Your task to perform on an android device: Clear the cart on newegg.com. Image 0: 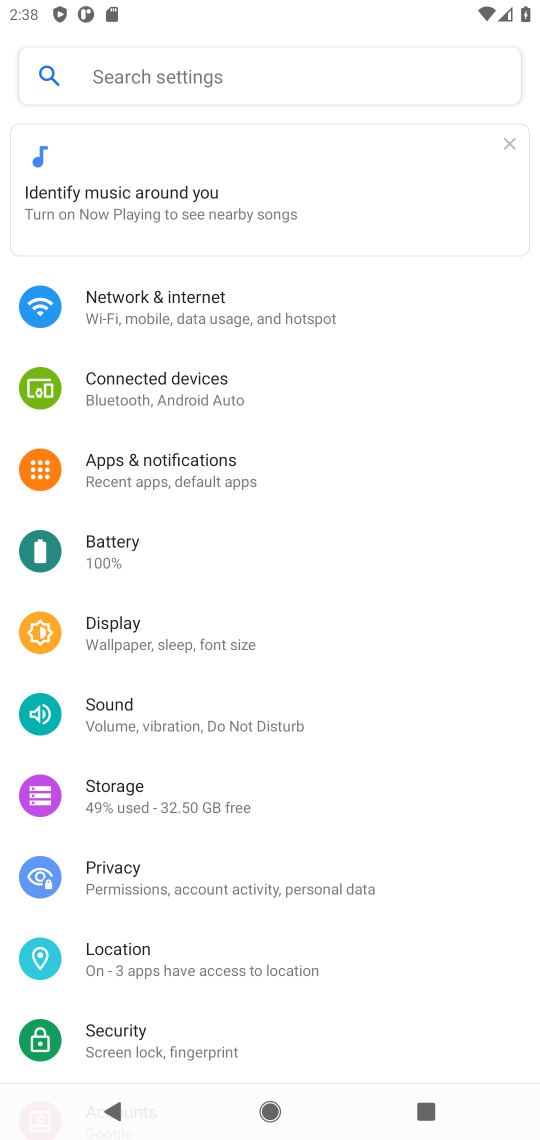
Step 0: press home button
Your task to perform on an android device: Clear the cart on newegg.com. Image 1: 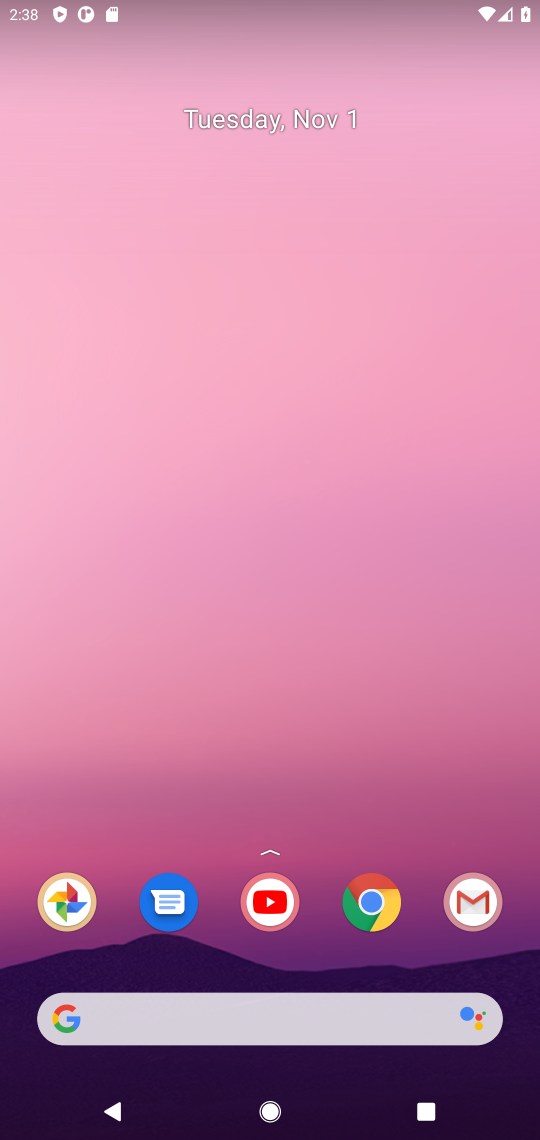
Step 1: click (368, 906)
Your task to perform on an android device: Clear the cart on newegg.com. Image 2: 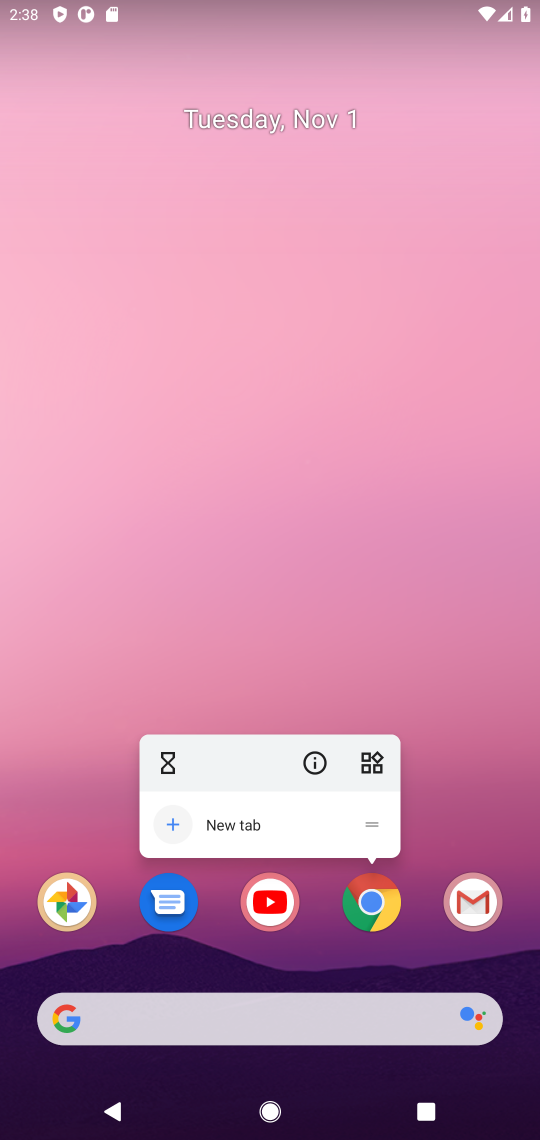
Step 2: click (371, 899)
Your task to perform on an android device: Clear the cart on newegg.com. Image 3: 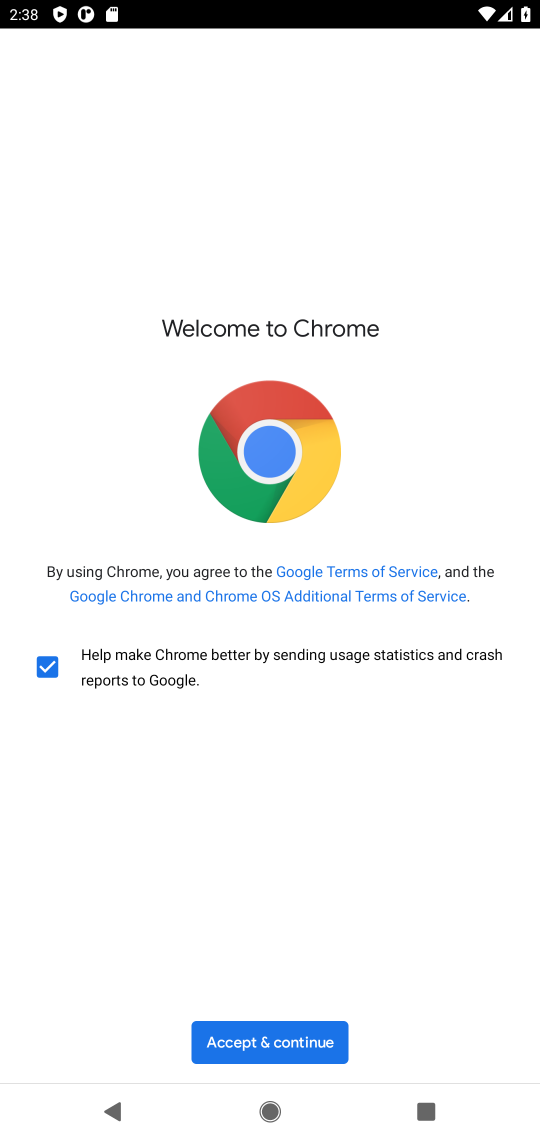
Step 3: click (269, 1034)
Your task to perform on an android device: Clear the cart on newegg.com. Image 4: 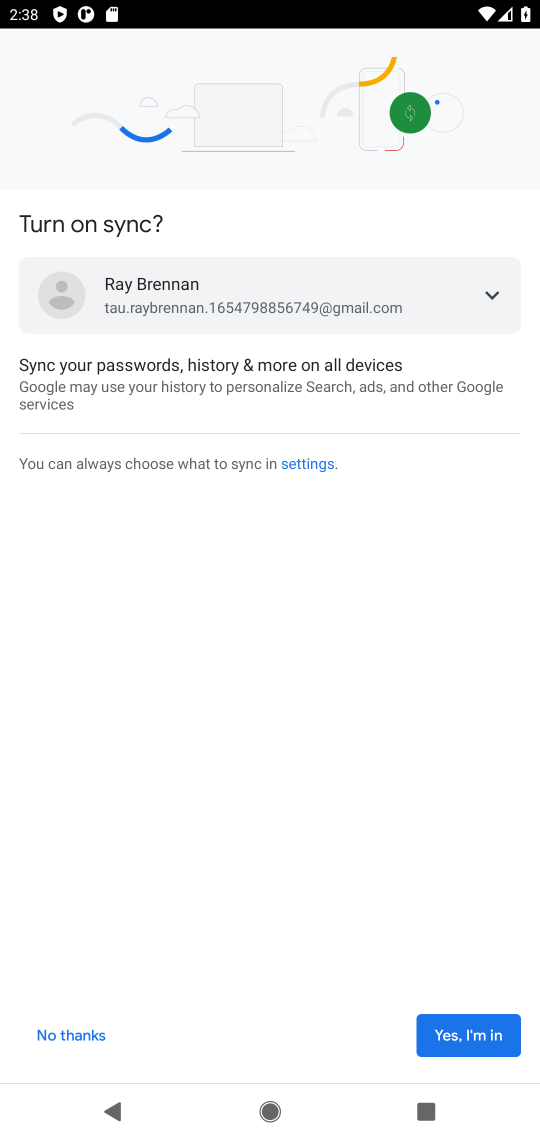
Step 4: click (459, 1041)
Your task to perform on an android device: Clear the cart on newegg.com. Image 5: 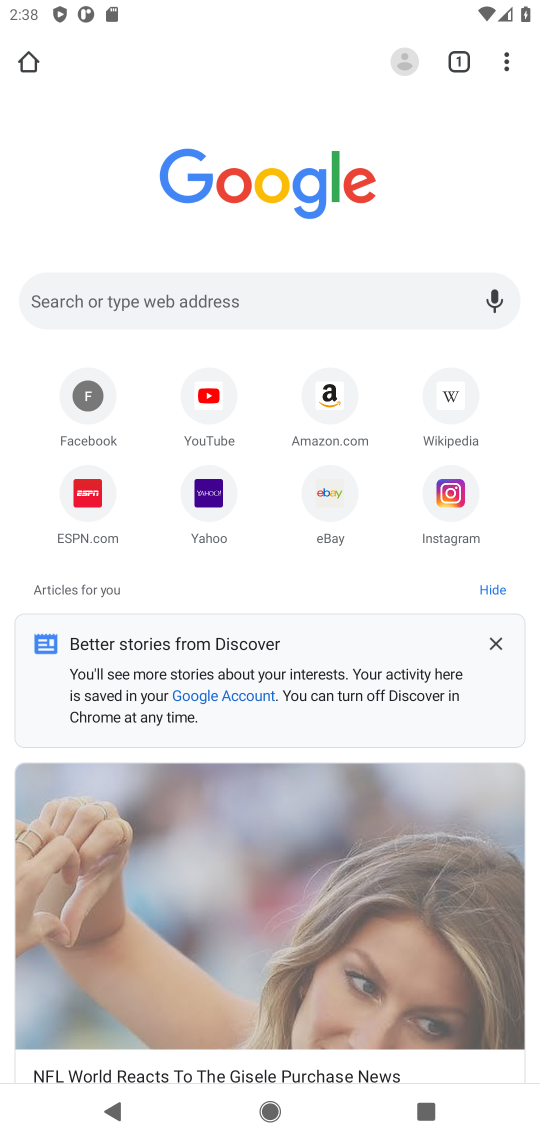
Step 5: click (268, 304)
Your task to perform on an android device: Clear the cart on newegg.com. Image 6: 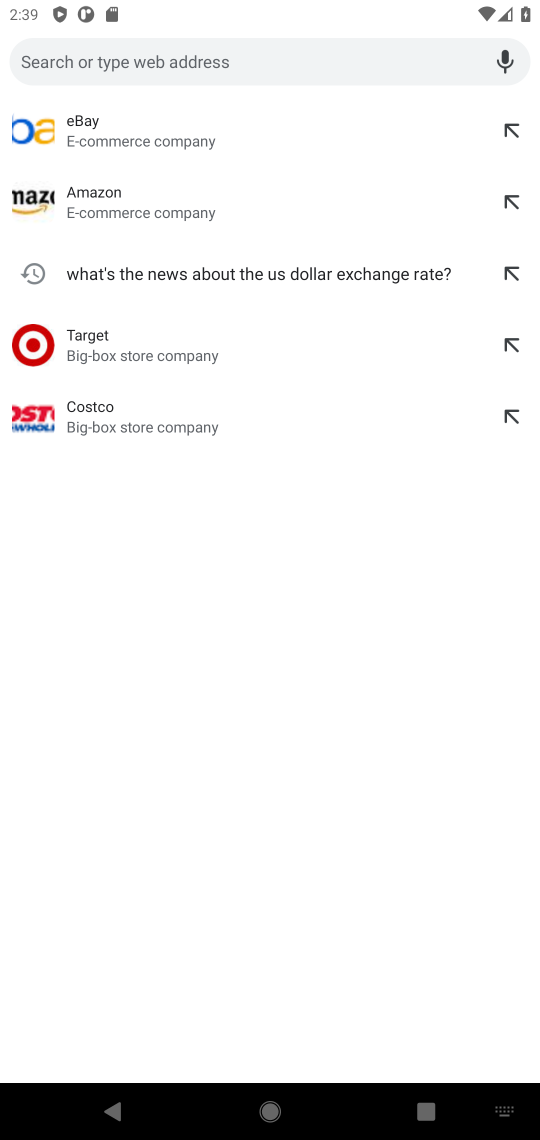
Step 6: type "newegg.com"
Your task to perform on an android device: Clear the cart on newegg.com. Image 7: 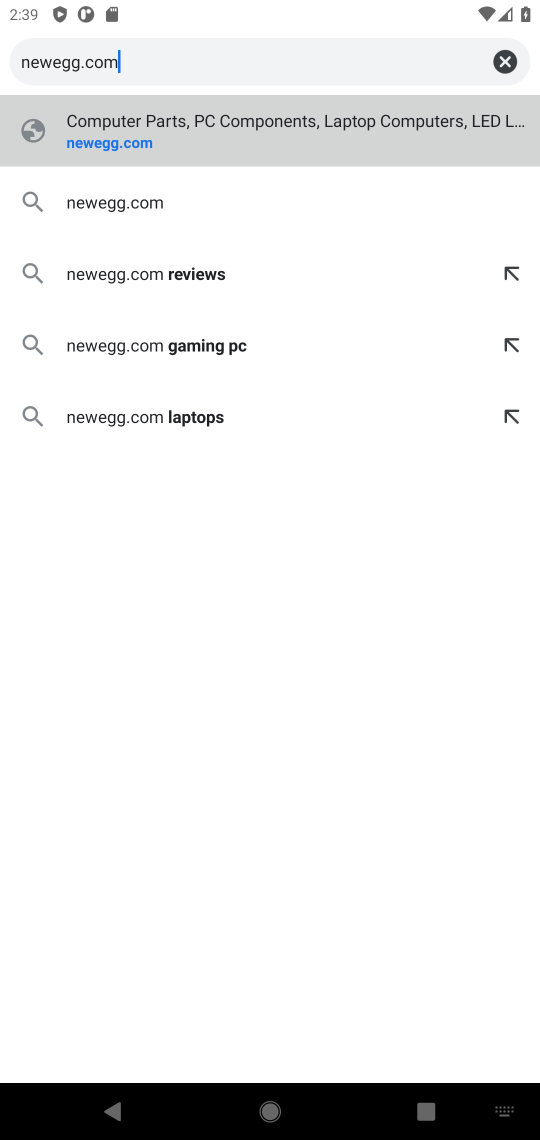
Step 7: click (133, 203)
Your task to perform on an android device: Clear the cart on newegg.com. Image 8: 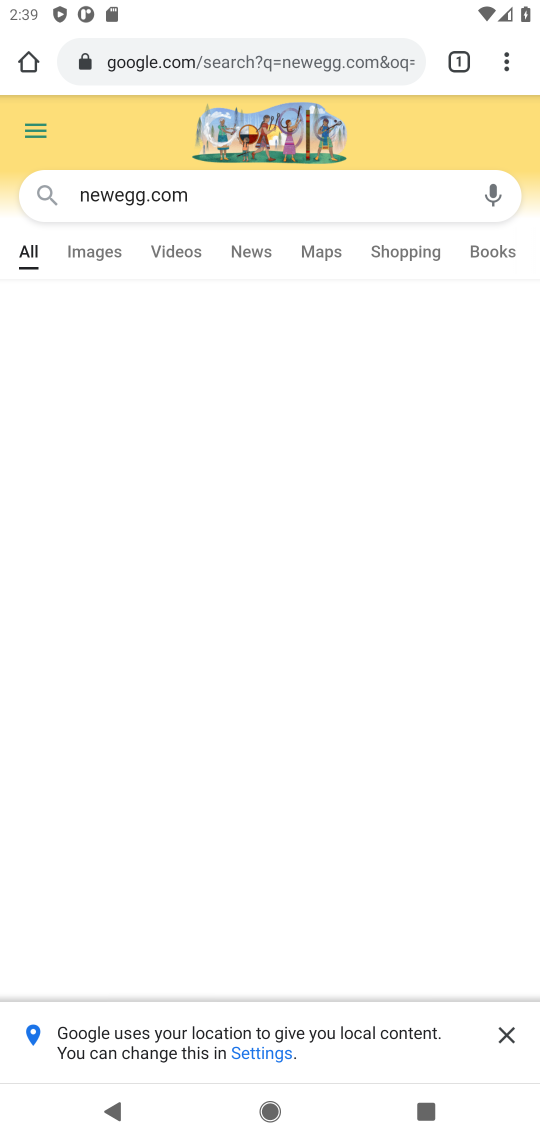
Step 8: click (504, 1029)
Your task to perform on an android device: Clear the cart on newegg.com. Image 9: 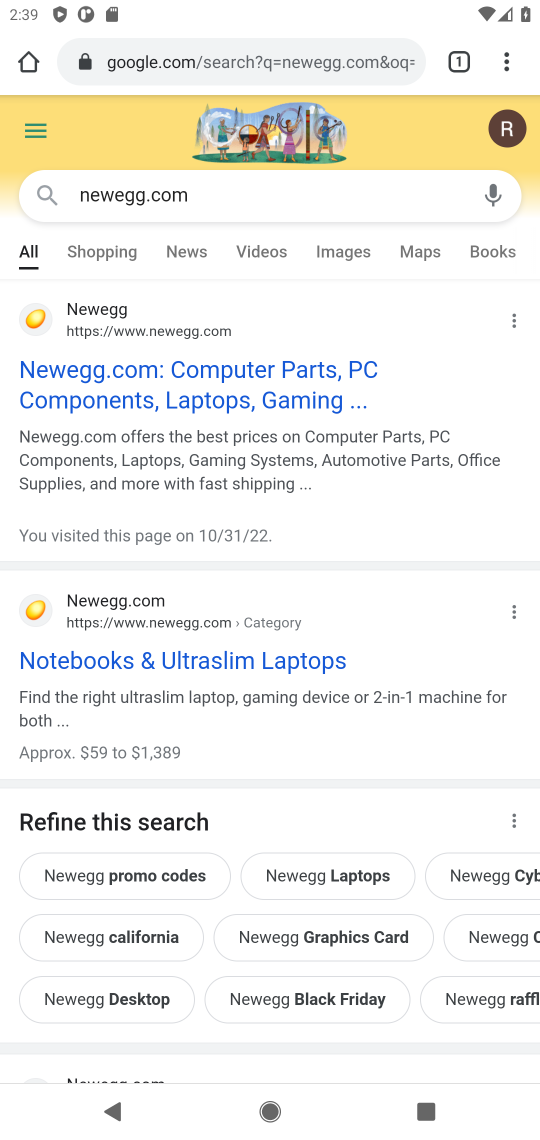
Step 9: click (191, 338)
Your task to perform on an android device: Clear the cart on newegg.com. Image 10: 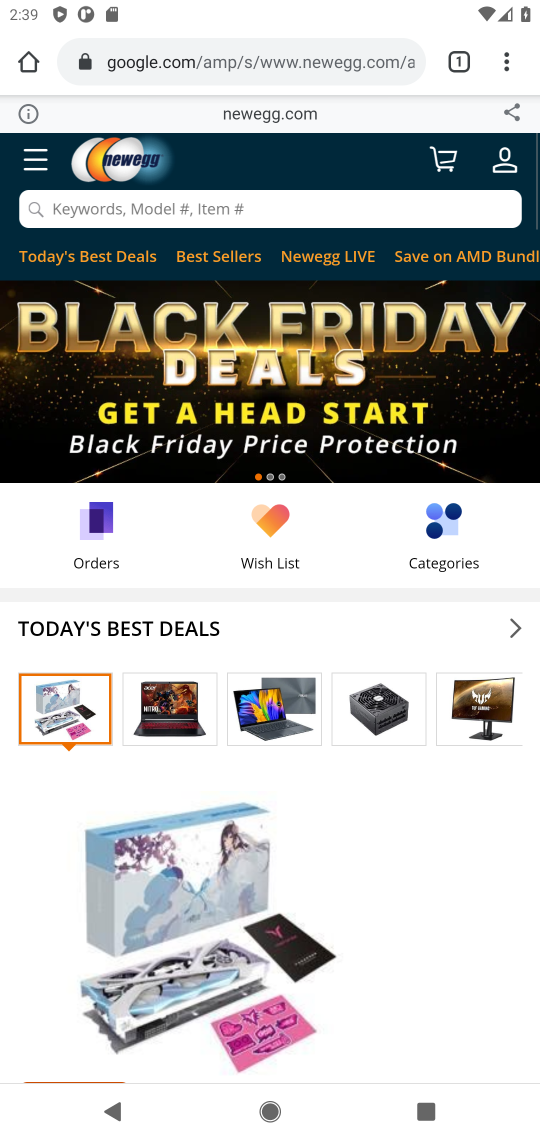
Step 10: click (446, 157)
Your task to perform on an android device: Clear the cart on newegg.com. Image 11: 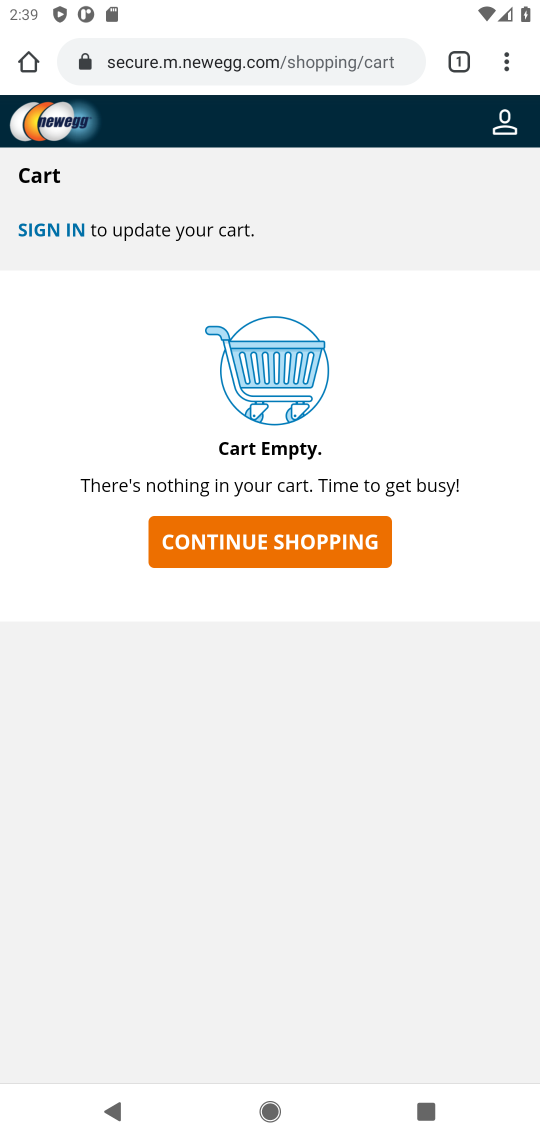
Step 11: task complete